Your task to perform on an android device: remove spam from my inbox in the gmail app Image 0: 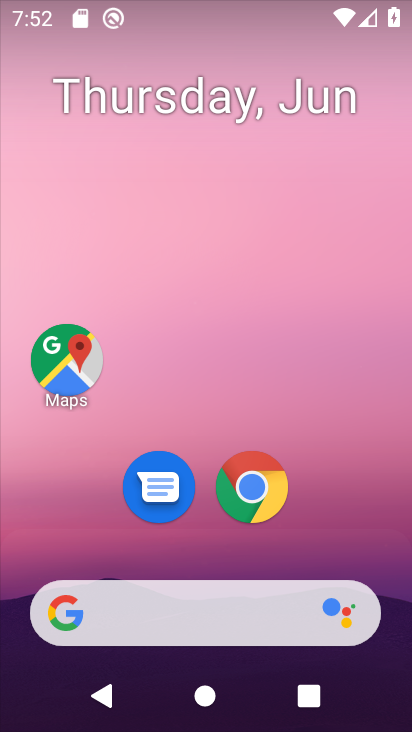
Step 0: click (284, 244)
Your task to perform on an android device: remove spam from my inbox in the gmail app Image 1: 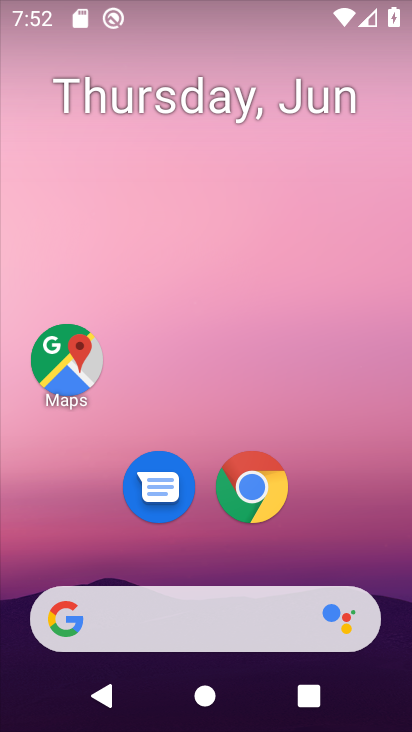
Step 1: drag from (218, 491) to (289, 127)
Your task to perform on an android device: remove spam from my inbox in the gmail app Image 2: 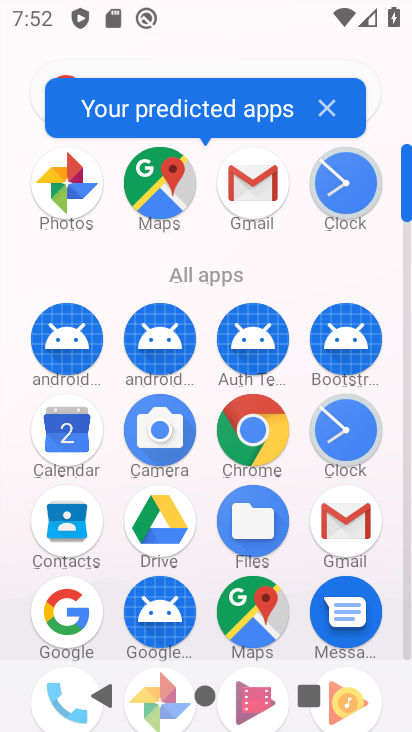
Step 2: drag from (209, 559) to (206, 261)
Your task to perform on an android device: remove spam from my inbox in the gmail app Image 3: 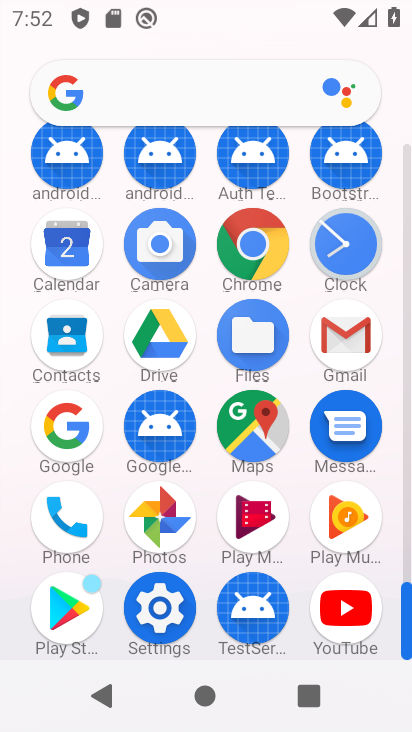
Step 3: click (337, 333)
Your task to perform on an android device: remove spam from my inbox in the gmail app Image 4: 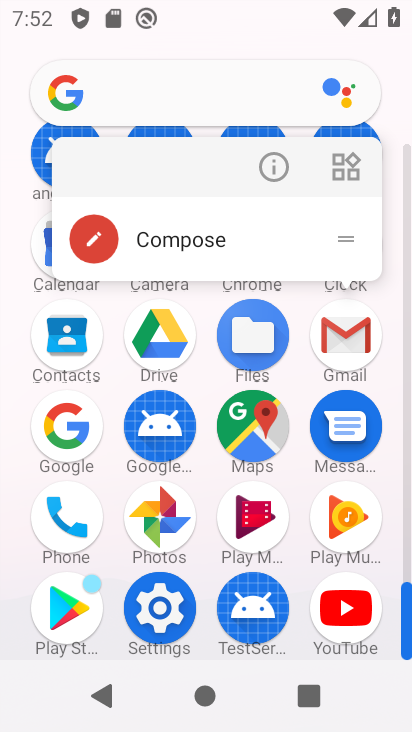
Step 4: click (271, 174)
Your task to perform on an android device: remove spam from my inbox in the gmail app Image 5: 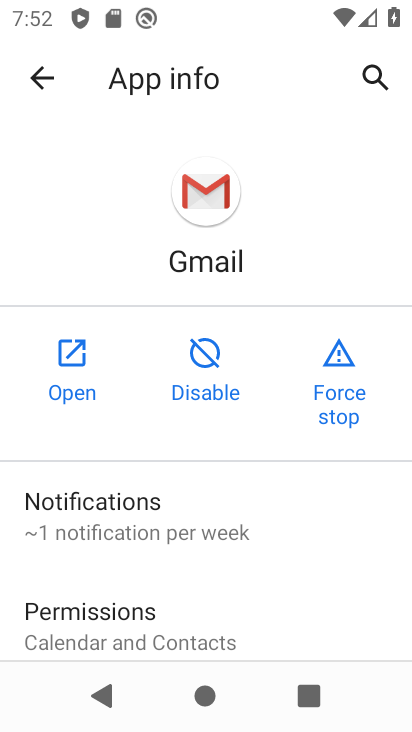
Step 5: click (57, 364)
Your task to perform on an android device: remove spam from my inbox in the gmail app Image 6: 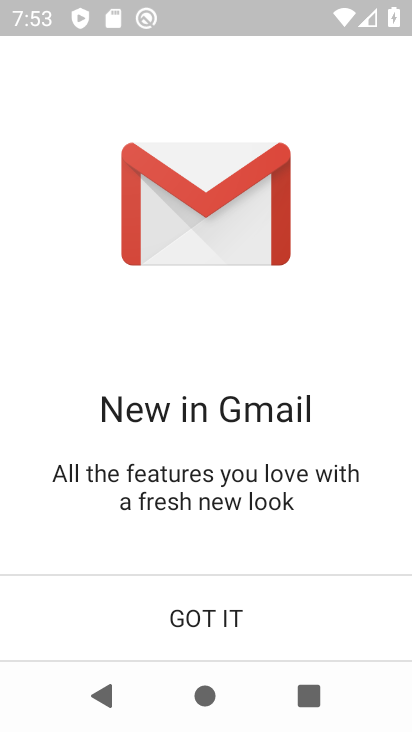
Step 6: click (205, 597)
Your task to perform on an android device: remove spam from my inbox in the gmail app Image 7: 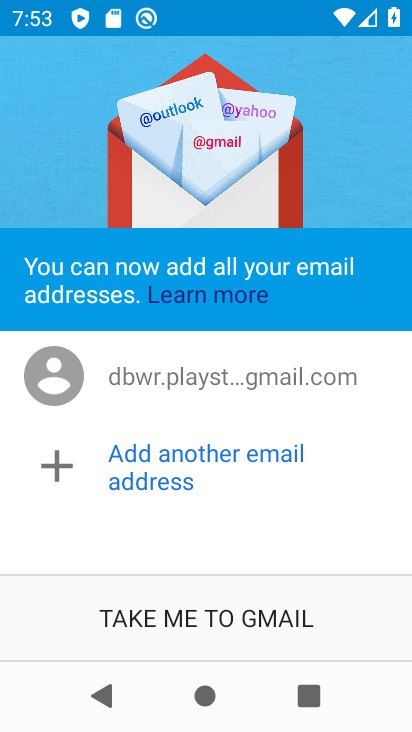
Step 7: click (239, 598)
Your task to perform on an android device: remove spam from my inbox in the gmail app Image 8: 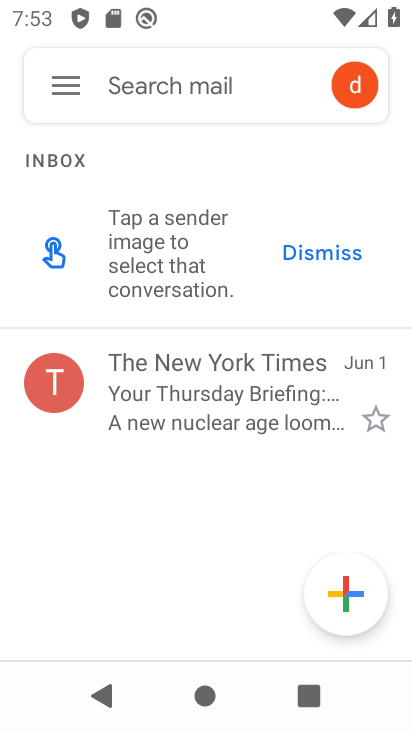
Step 8: drag from (190, 545) to (282, 317)
Your task to perform on an android device: remove spam from my inbox in the gmail app Image 9: 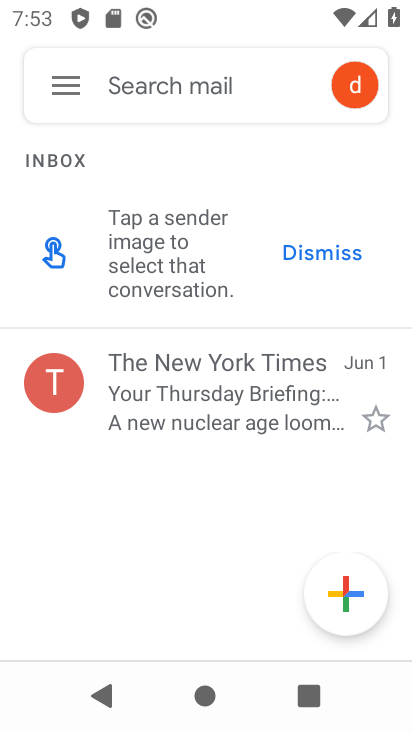
Step 9: click (58, 105)
Your task to perform on an android device: remove spam from my inbox in the gmail app Image 10: 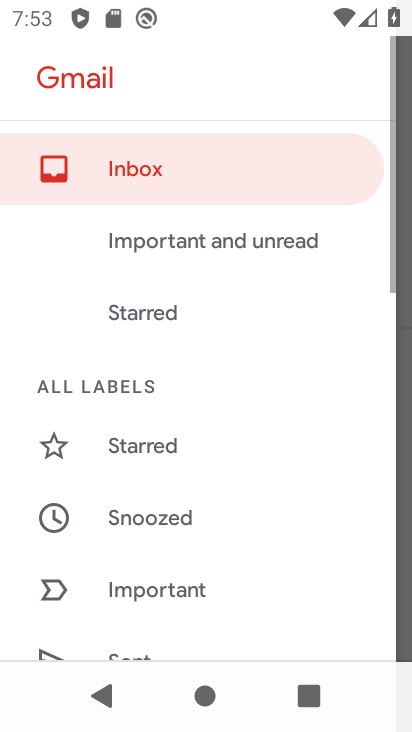
Step 10: drag from (177, 547) to (312, 42)
Your task to perform on an android device: remove spam from my inbox in the gmail app Image 11: 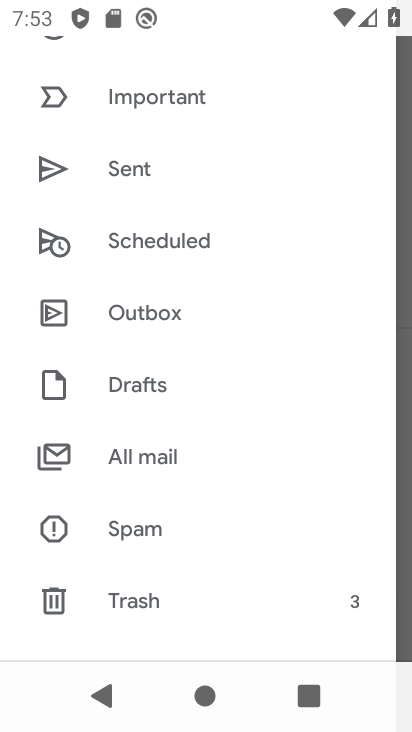
Step 11: click (147, 535)
Your task to perform on an android device: remove spam from my inbox in the gmail app Image 12: 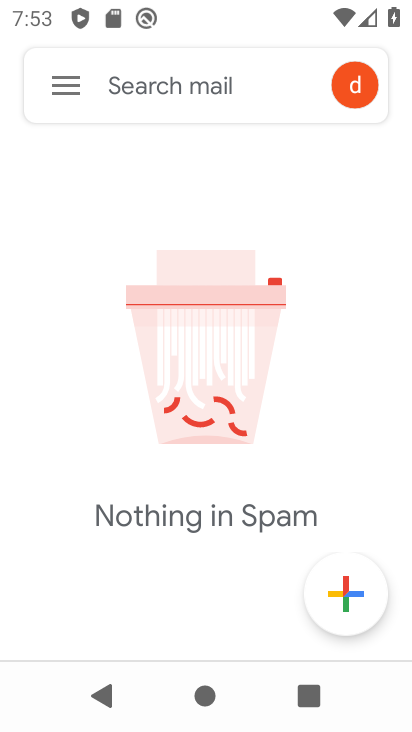
Step 12: task complete